Your task to perform on an android device: Open settings Image 0: 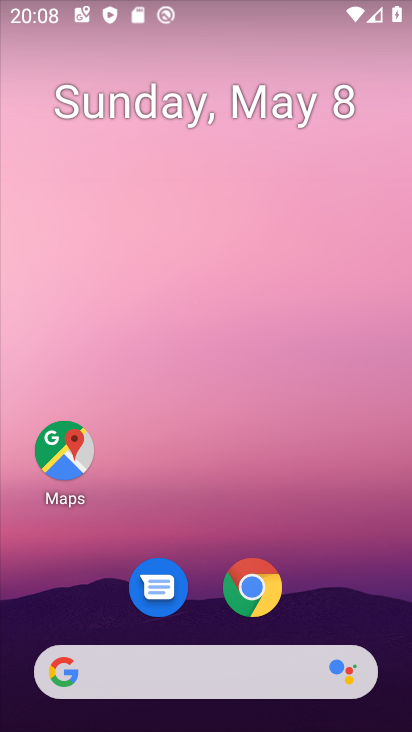
Step 0: drag from (338, 607) to (288, 8)
Your task to perform on an android device: Open settings Image 1: 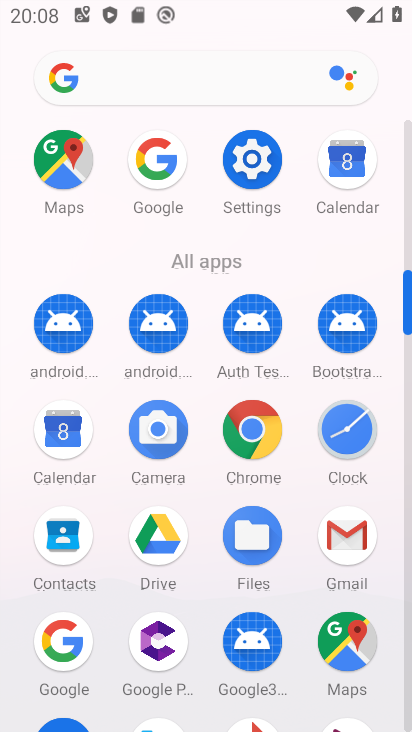
Step 1: click (252, 160)
Your task to perform on an android device: Open settings Image 2: 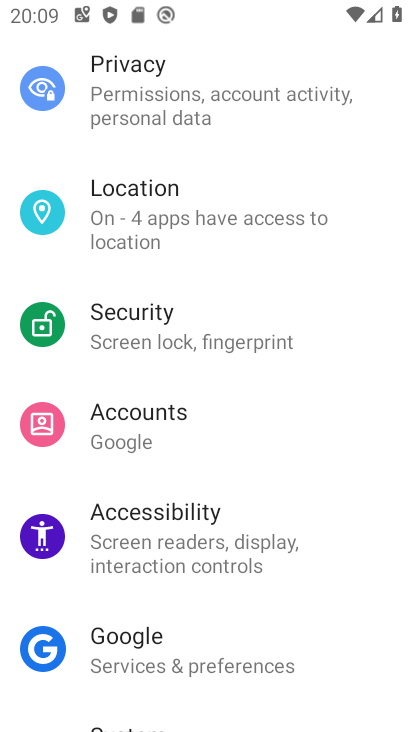
Step 2: task complete